Your task to perform on an android device: Open privacy settings Image 0: 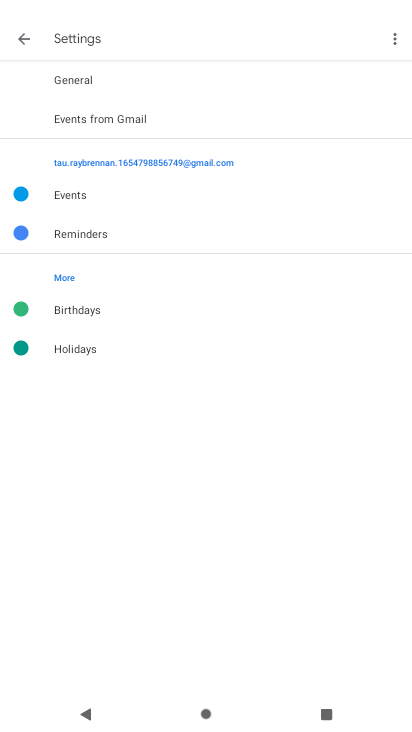
Step 0: press home button
Your task to perform on an android device: Open privacy settings Image 1: 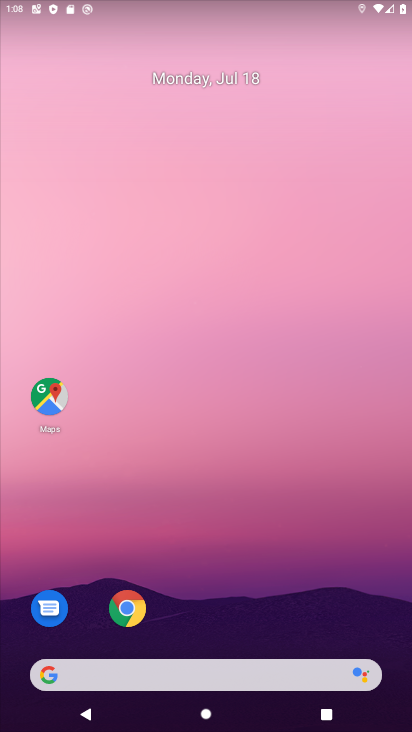
Step 1: drag from (279, 623) to (302, 39)
Your task to perform on an android device: Open privacy settings Image 2: 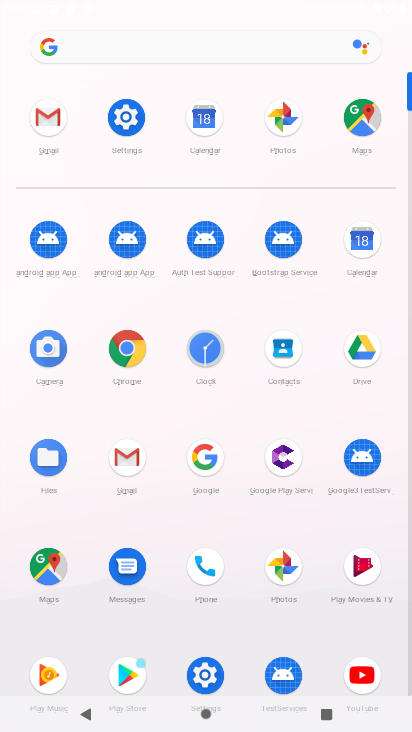
Step 2: click (117, 124)
Your task to perform on an android device: Open privacy settings Image 3: 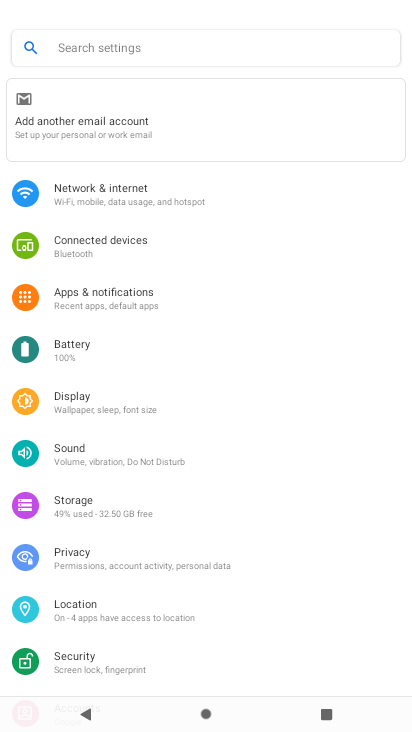
Step 3: click (126, 565)
Your task to perform on an android device: Open privacy settings Image 4: 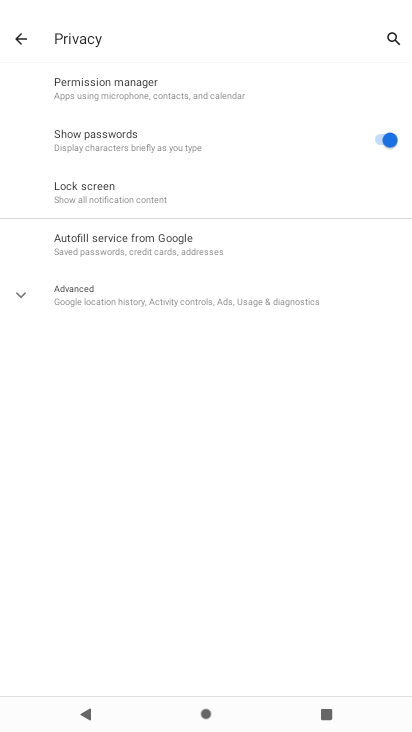
Step 4: task complete